Your task to perform on an android device: Play the last video I watched on Youtube Image 0: 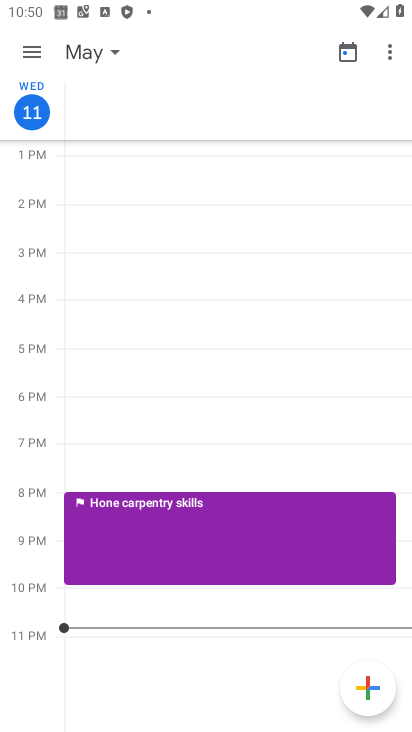
Step 0: press home button
Your task to perform on an android device: Play the last video I watched on Youtube Image 1: 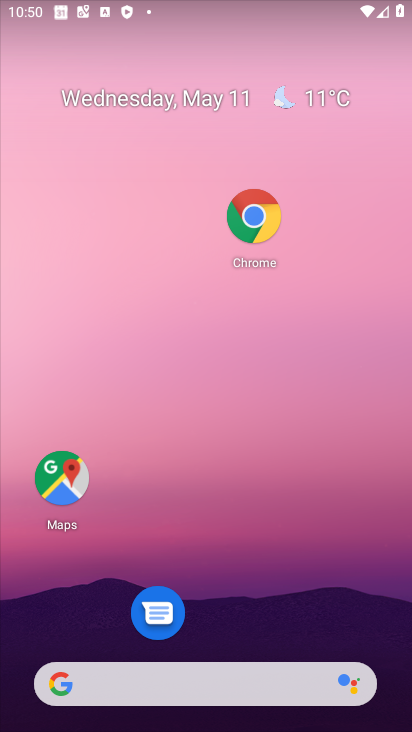
Step 1: drag from (249, 577) to (212, 117)
Your task to perform on an android device: Play the last video I watched on Youtube Image 2: 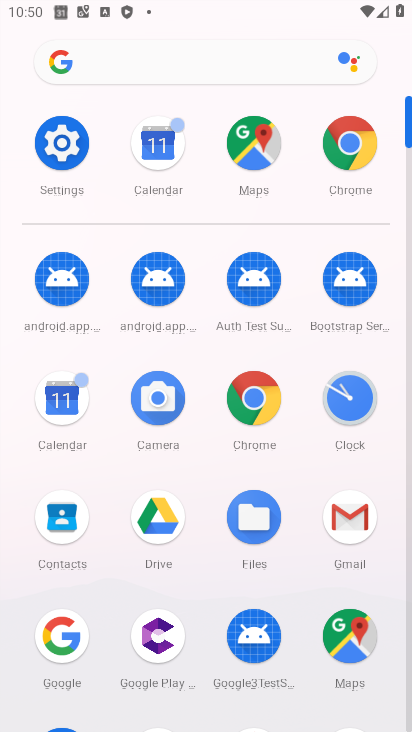
Step 2: drag from (202, 241) to (218, 62)
Your task to perform on an android device: Play the last video I watched on Youtube Image 3: 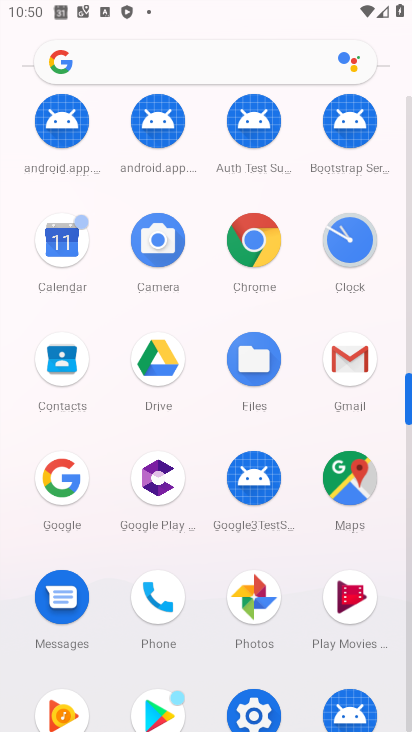
Step 3: drag from (209, 196) to (213, 36)
Your task to perform on an android device: Play the last video I watched on Youtube Image 4: 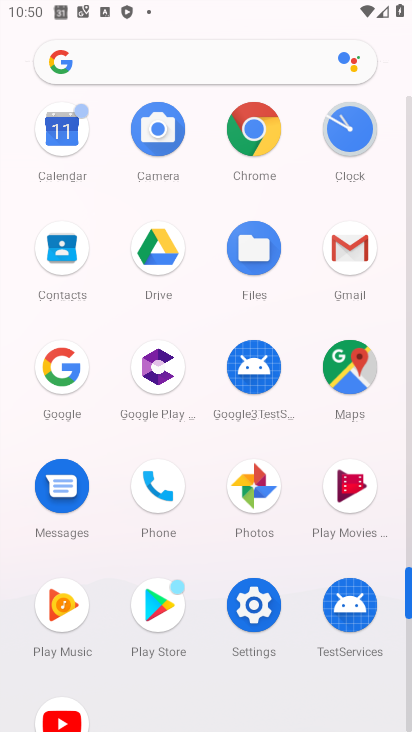
Step 4: click (76, 717)
Your task to perform on an android device: Play the last video I watched on Youtube Image 5: 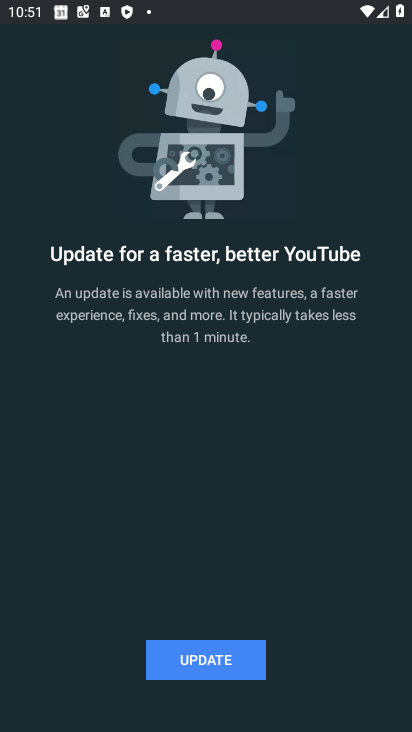
Step 5: click (214, 658)
Your task to perform on an android device: Play the last video I watched on Youtube Image 6: 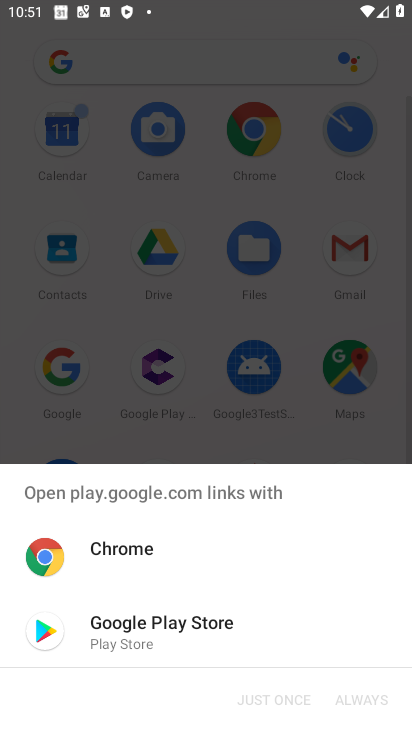
Step 6: click (174, 616)
Your task to perform on an android device: Play the last video I watched on Youtube Image 7: 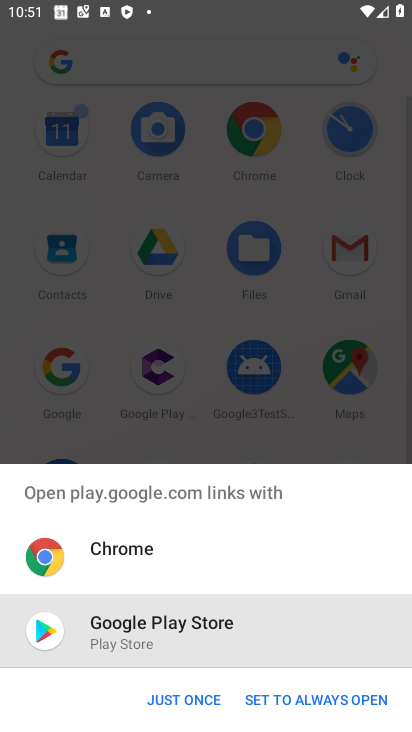
Step 7: click (264, 623)
Your task to perform on an android device: Play the last video I watched on Youtube Image 8: 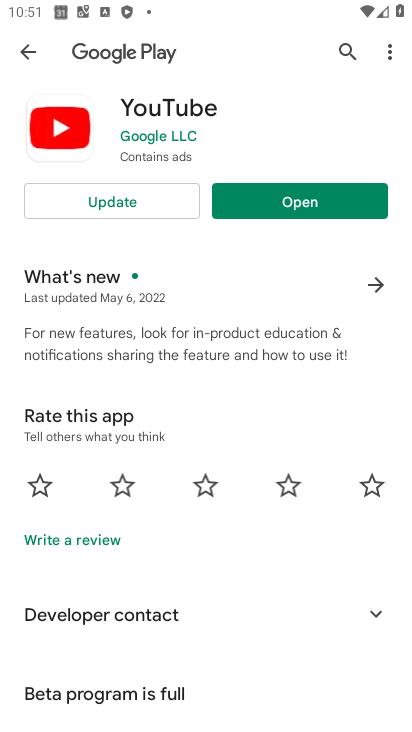
Step 8: click (158, 206)
Your task to perform on an android device: Play the last video I watched on Youtube Image 9: 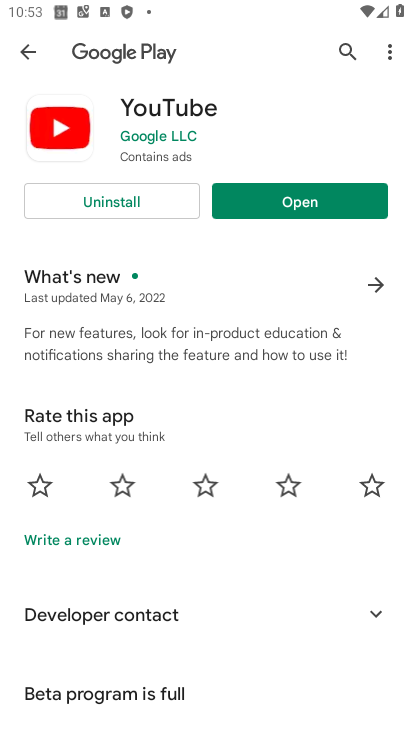
Step 9: click (294, 196)
Your task to perform on an android device: Play the last video I watched on Youtube Image 10: 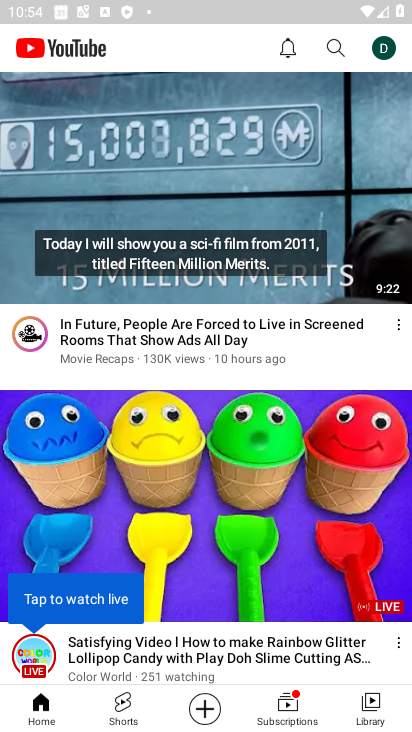
Step 10: click (370, 714)
Your task to perform on an android device: Play the last video I watched on Youtube Image 11: 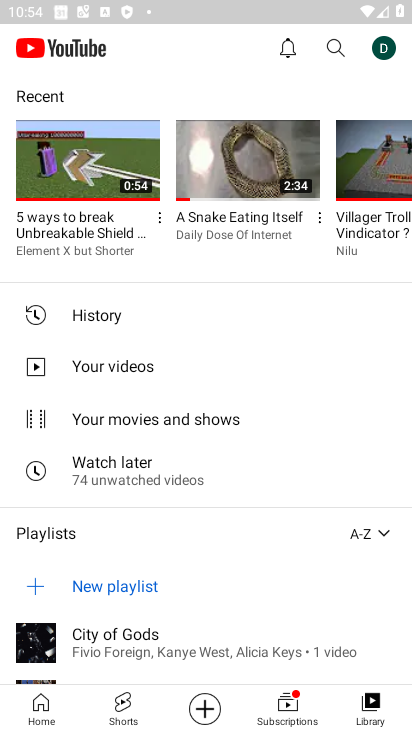
Step 11: click (66, 201)
Your task to perform on an android device: Play the last video I watched on Youtube Image 12: 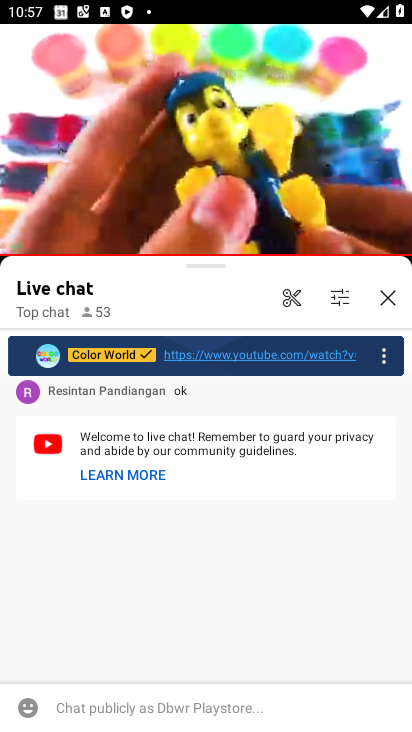
Step 12: task complete